Your task to perform on an android device: What is the news today? Image 0: 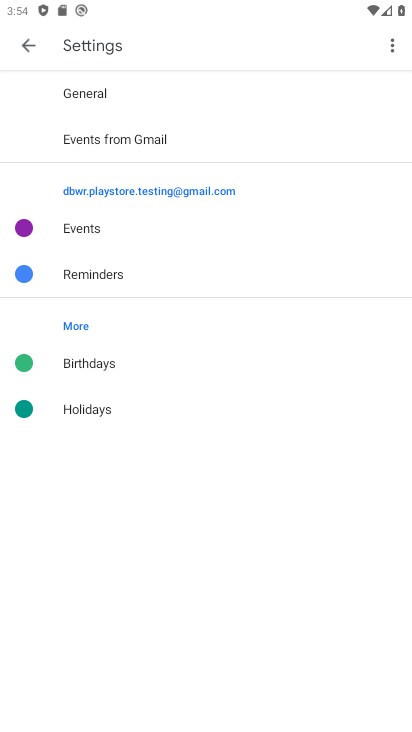
Step 0: press home button
Your task to perform on an android device: What is the news today? Image 1: 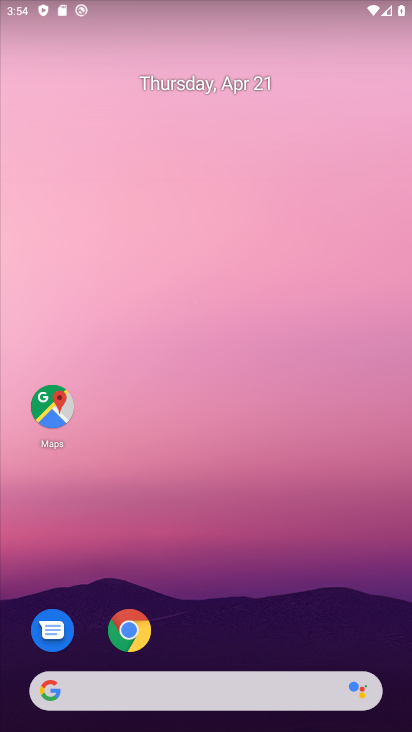
Step 1: click (129, 632)
Your task to perform on an android device: What is the news today? Image 2: 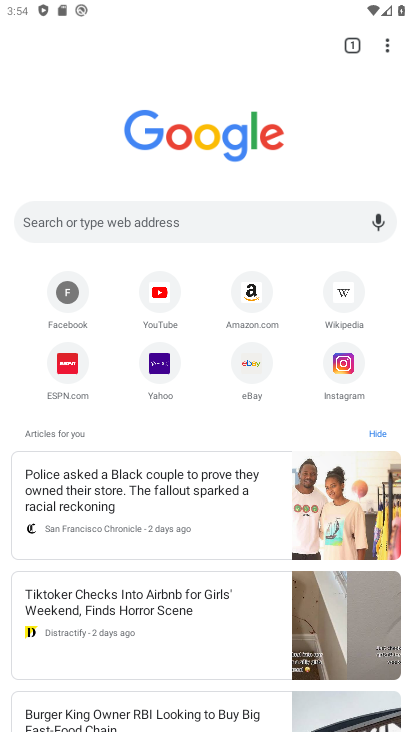
Step 2: click (289, 214)
Your task to perform on an android device: What is the news today? Image 3: 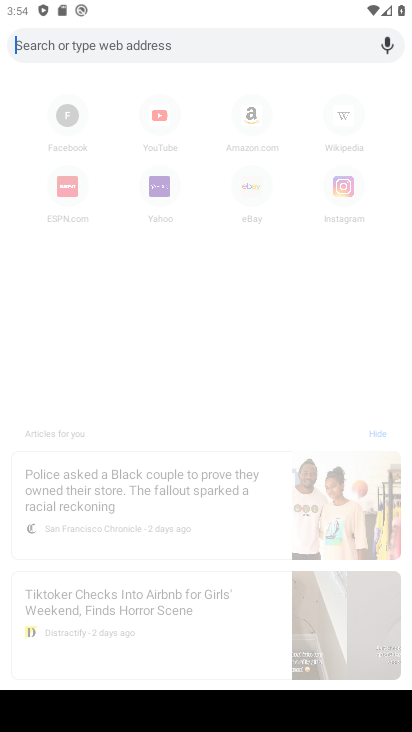
Step 3: type "What is the news today?"
Your task to perform on an android device: What is the news today? Image 4: 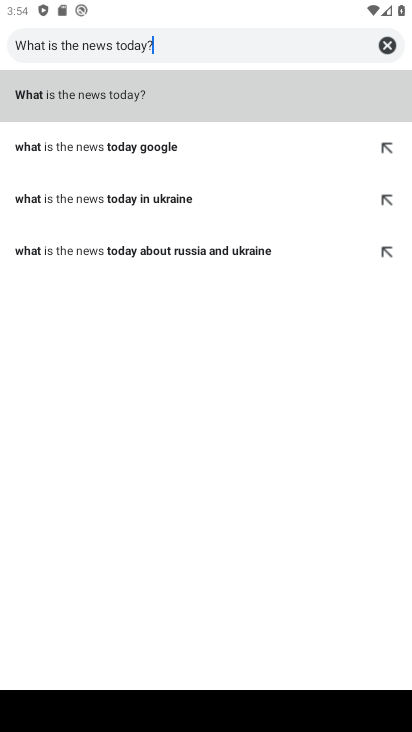
Step 4: click (34, 94)
Your task to perform on an android device: What is the news today? Image 5: 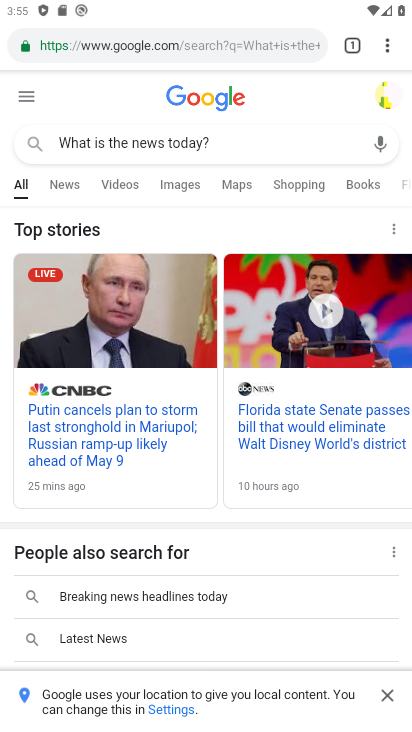
Step 5: task complete